Your task to perform on an android device: Search for the best rated tool bag on Lowe's. Image 0: 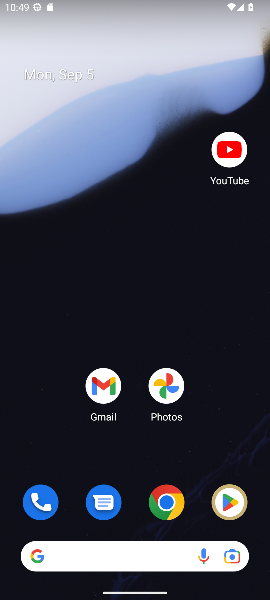
Step 0: drag from (178, 239) to (158, 171)
Your task to perform on an android device: Search for the best rated tool bag on Lowe's. Image 1: 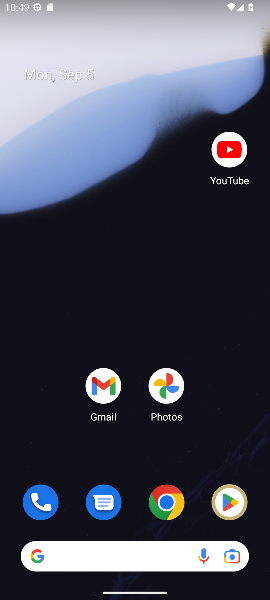
Step 1: drag from (258, 538) to (120, 166)
Your task to perform on an android device: Search for the best rated tool bag on Lowe's. Image 2: 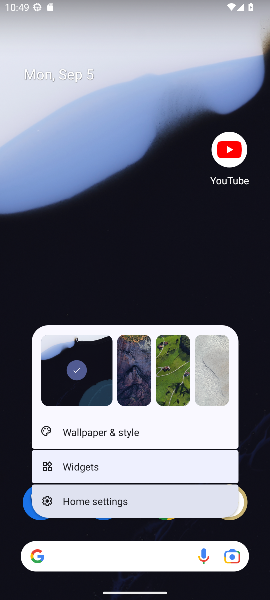
Step 2: click (250, 437)
Your task to perform on an android device: Search for the best rated tool bag on Lowe's. Image 3: 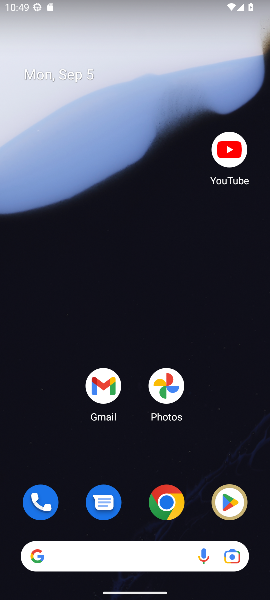
Step 3: drag from (250, 437) to (159, 122)
Your task to perform on an android device: Search for the best rated tool bag on Lowe's. Image 4: 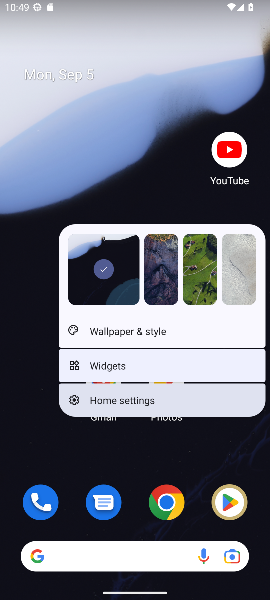
Step 4: click (84, 196)
Your task to perform on an android device: Search for the best rated tool bag on Lowe's. Image 5: 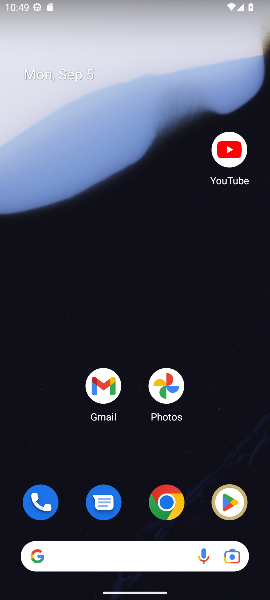
Step 5: drag from (244, 480) to (76, 40)
Your task to perform on an android device: Search for the best rated tool bag on Lowe's. Image 6: 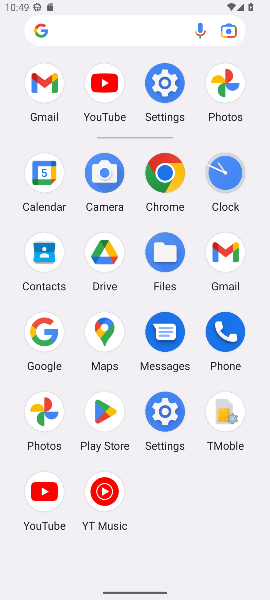
Step 6: click (45, 337)
Your task to perform on an android device: Search for the best rated tool bag on Lowe's. Image 7: 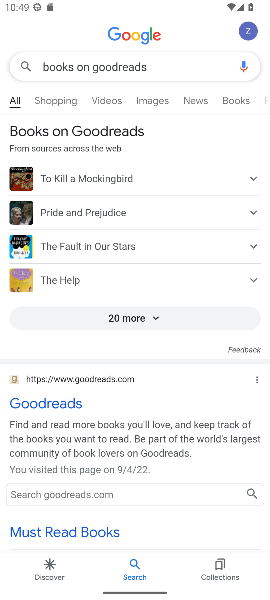
Step 7: press back button
Your task to perform on an android device: Search for the best rated tool bag on Lowe's. Image 8: 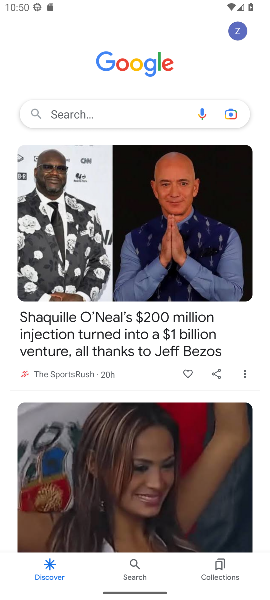
Step 8: click (98, 117)
Your task to perform on an android device: Search for the best rated tool bag on Lowe's. Image 9: 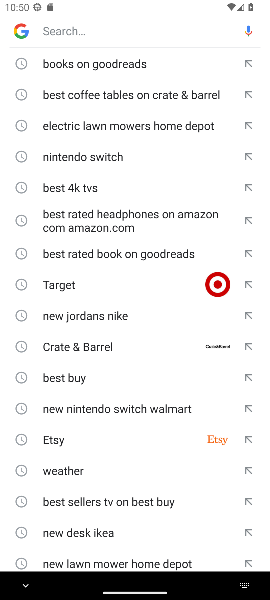
Step 9: type "best rated tool bag on Lowe's"
Your task to perform on an android device: Search for the best rated tool bag on Lowe's. Image 10: 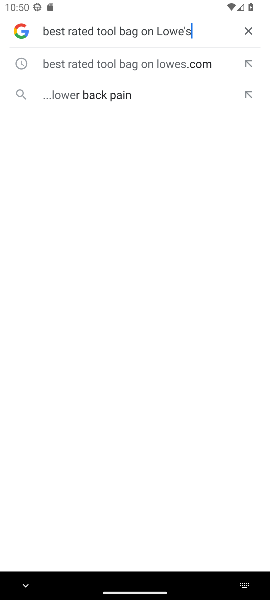
Step 10: click (139, 64)
Your task to perform on an android device: Search for the best rated tool bag on Lowe's. Image 11: 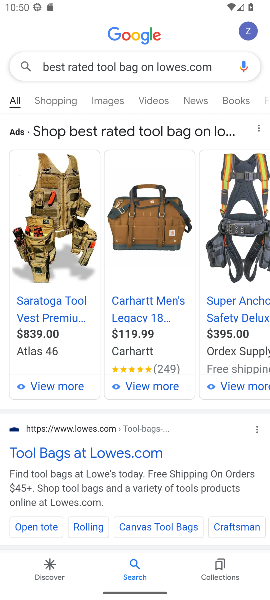
Step 11: task complete